Your task to perform on an android device: toggle data saver in the chrome app Image 0: 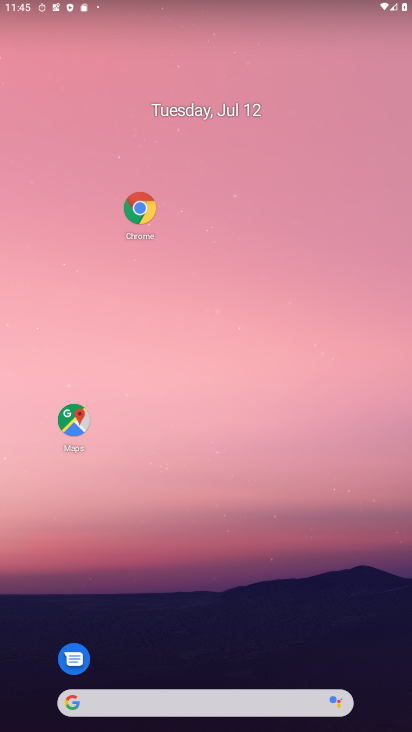
Step 0: drag from (154, 697) to (155, 12)
Your task to perform on an android device: toggle data saver in the chrome app Image 1: 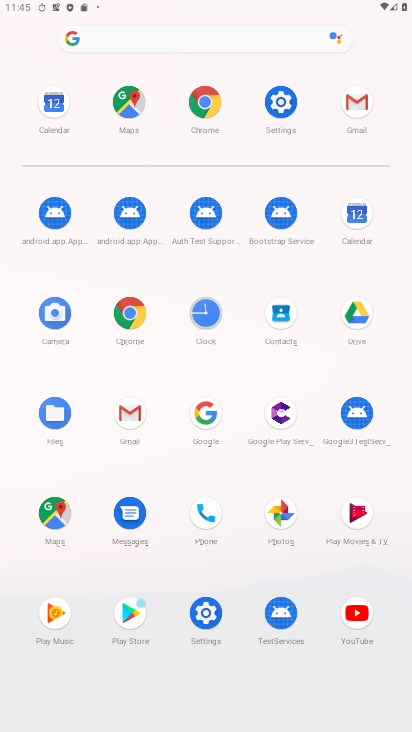
Step 1: click (119, 309)
Your task to perform on an android device: toggle data saver in the chrome app Image 2: 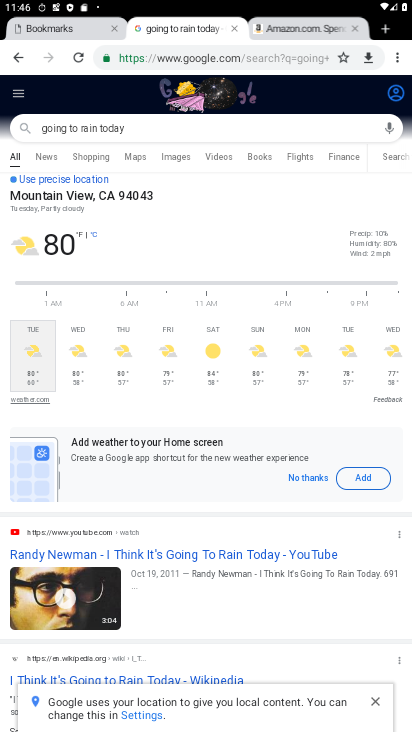
Step 2: drag from (398, 52) to (285, 348)
Your task to perform on an android device: toggle data saver in the chrome app Image 3: 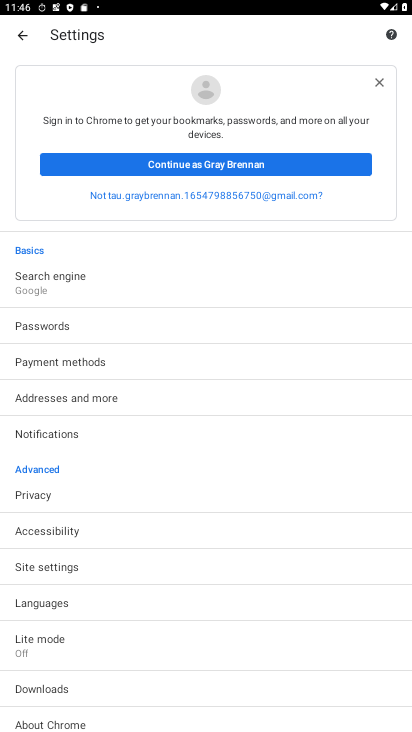
Step 3: click (66, 637)
Your task to perform on an android device: toggle data saver in the chrome app Image 4: 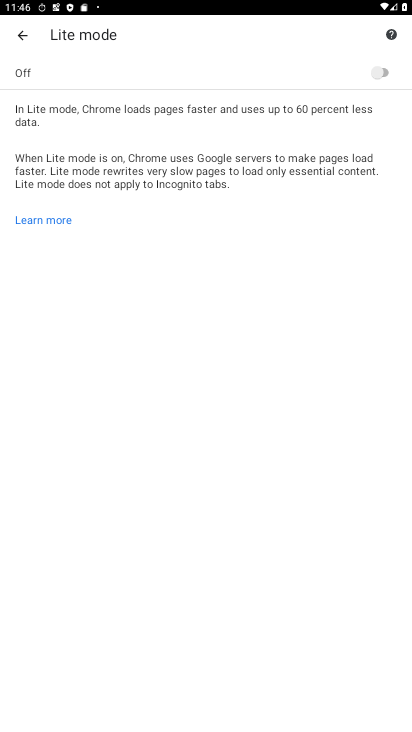
Step 4: click (383, 75)
Your task to perform on an android device: toggle data saver in the chrome app Image 5: 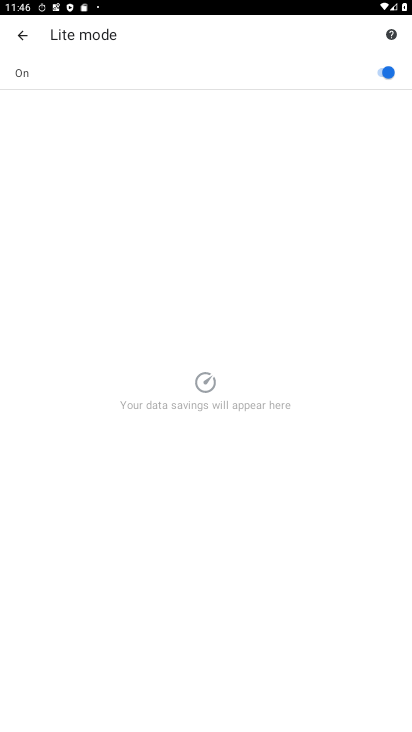
Step 5: task complete